Your task to perform on an android device: When is my next appointment? Image 0: 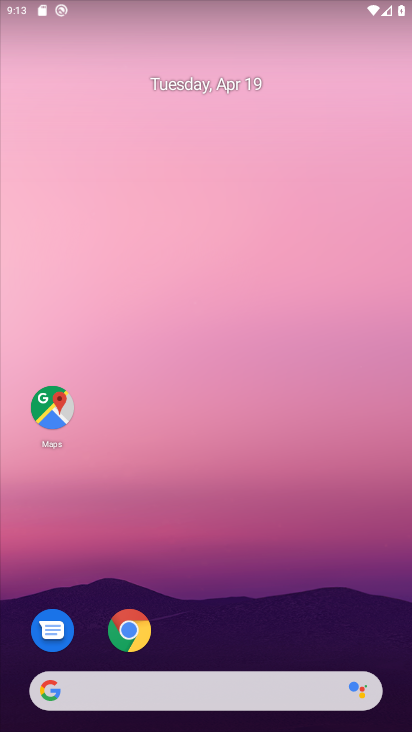
Step 0: drag from (280, 638) to (292, 169)
Your task to perform on an android device: When is my next appointment? Image 1: 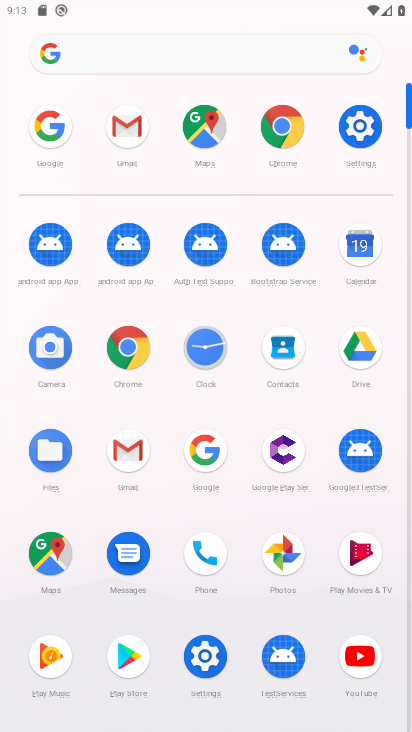
Step 1: click (356, 254)
Your task to perform on an android device: When is my next appointment? Image 2: 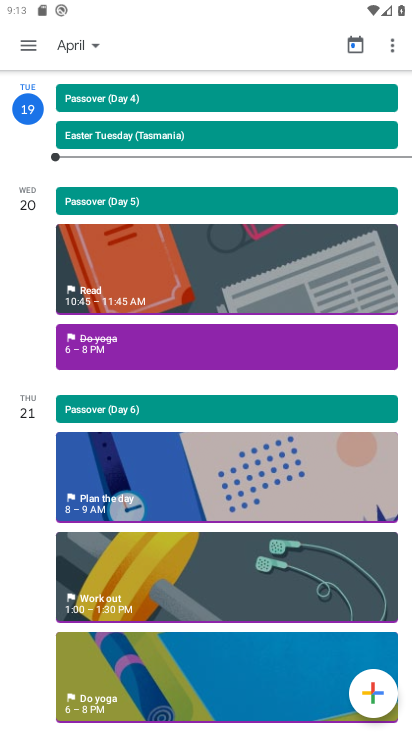
Step 2: task complete